Your task to perform on an android device: Is it going to rain today? Image 0: 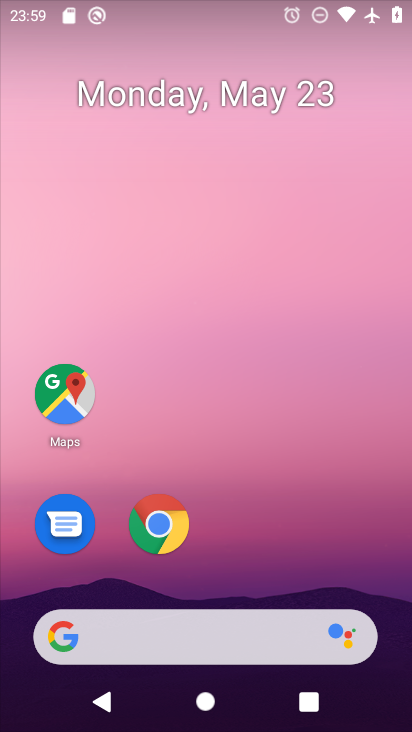
Step 0: drag from (226, 565) to (187, 189)
Your task to perform on an android device: Is it going to rain today? Image 1: 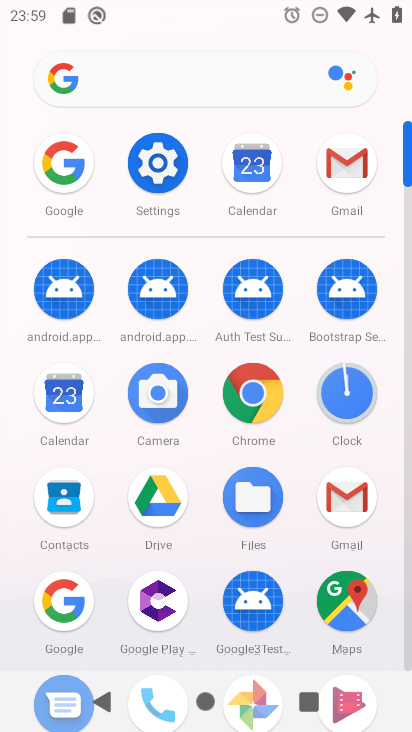
Step 1: click (72, 175)
Your task to perform on an android device: Is it going to rain today? Image 2: 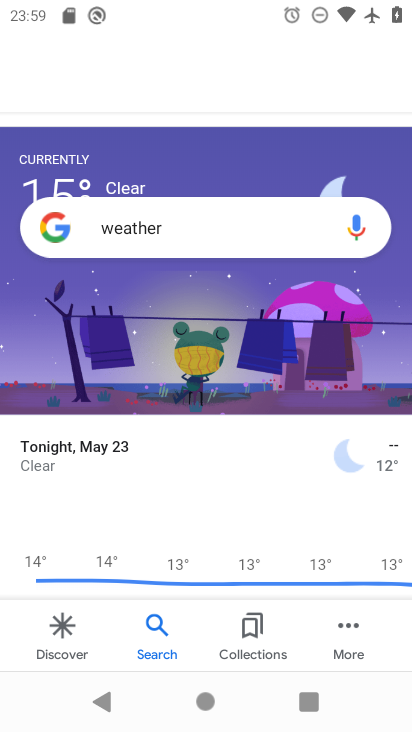
Step 2: click (206, 226)
Your task to perform on an android device: Is it going to rain today? Image 3: 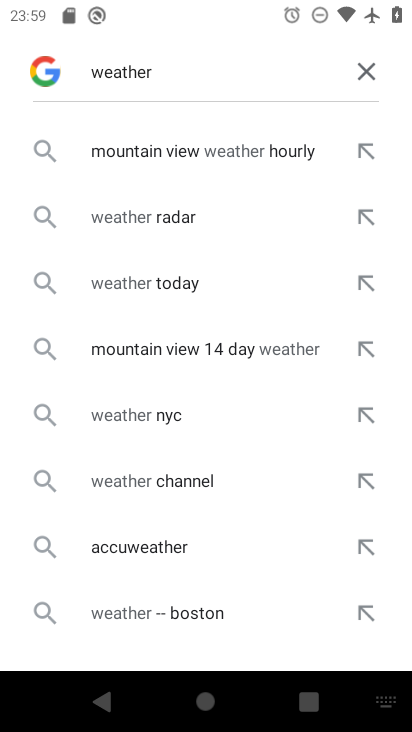
Step 3: click (362, 71)
Your task to perform on an android device: Is it going to rain today? Image 4: 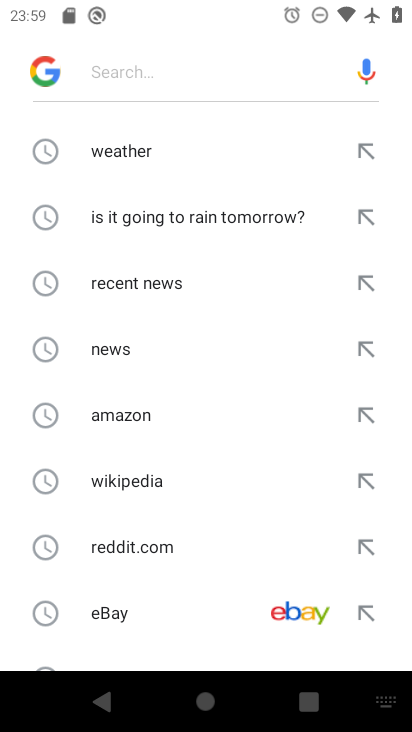
Step 4: click (147, 138)
Your task to perform on an android device: Is it going to rain today? Image 5: 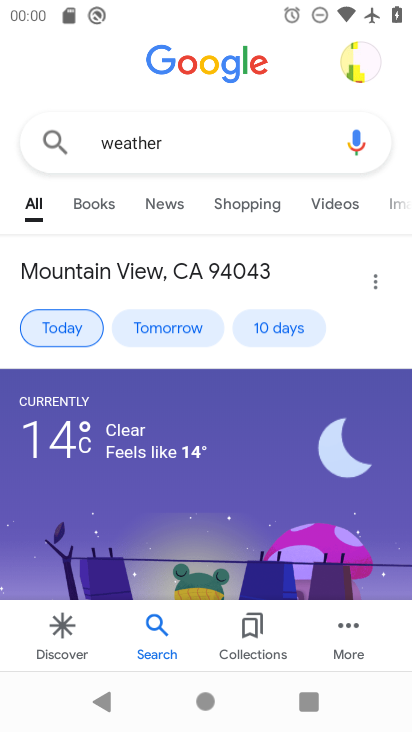
Step 5: task complete